Your task to perform on an android device: turn notification dots on Image 0: 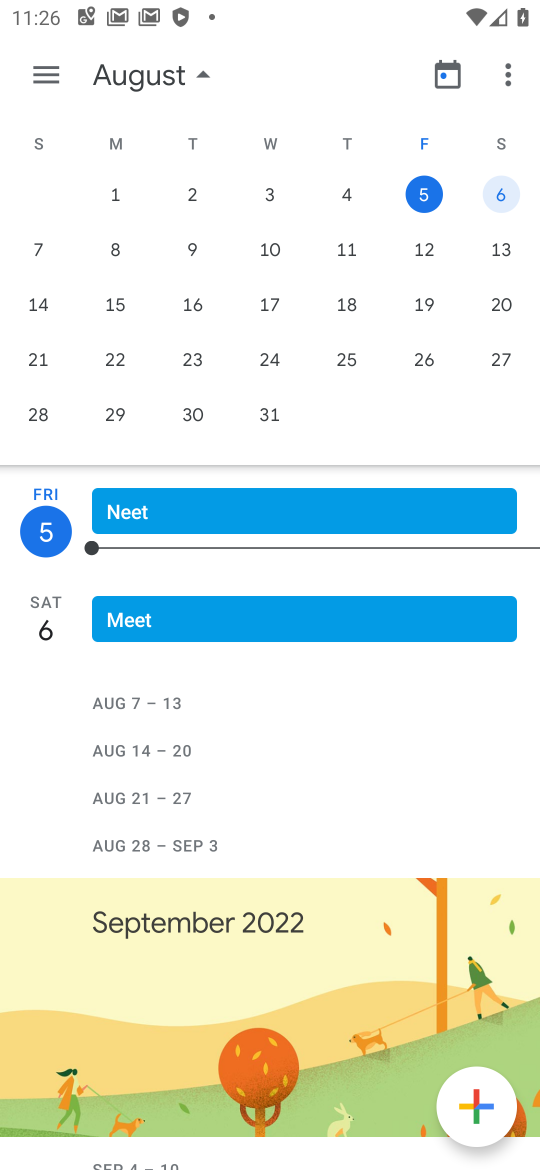
Step 0: press home button
Your task to perform on an android device: turn notification dots on Image 1: 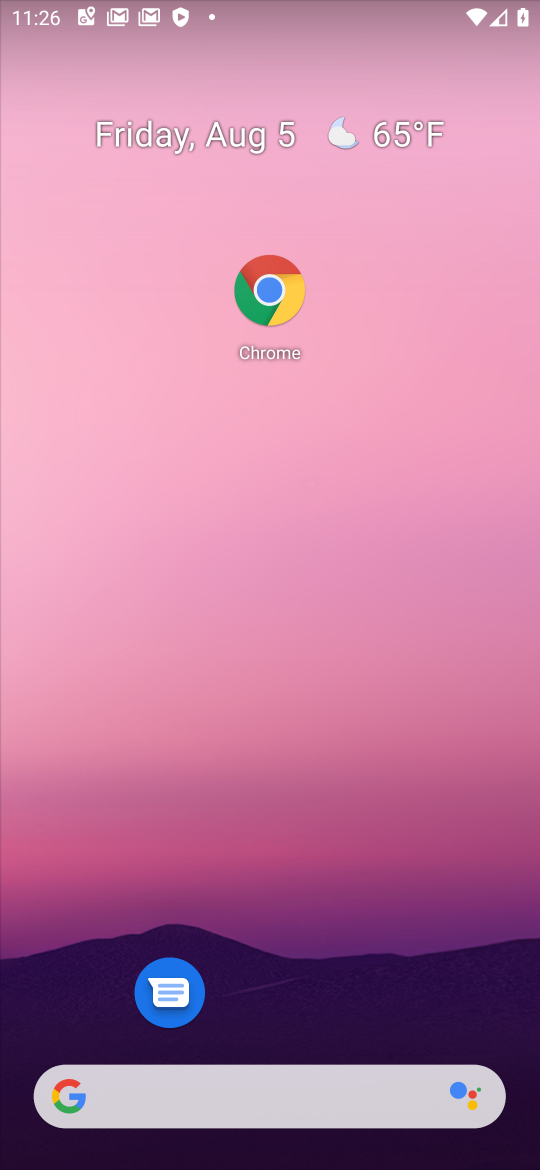
Step 1: drag from (303, 915) to (313, 66)
Your task to perform on an android device: turn notification dots on Image 2: 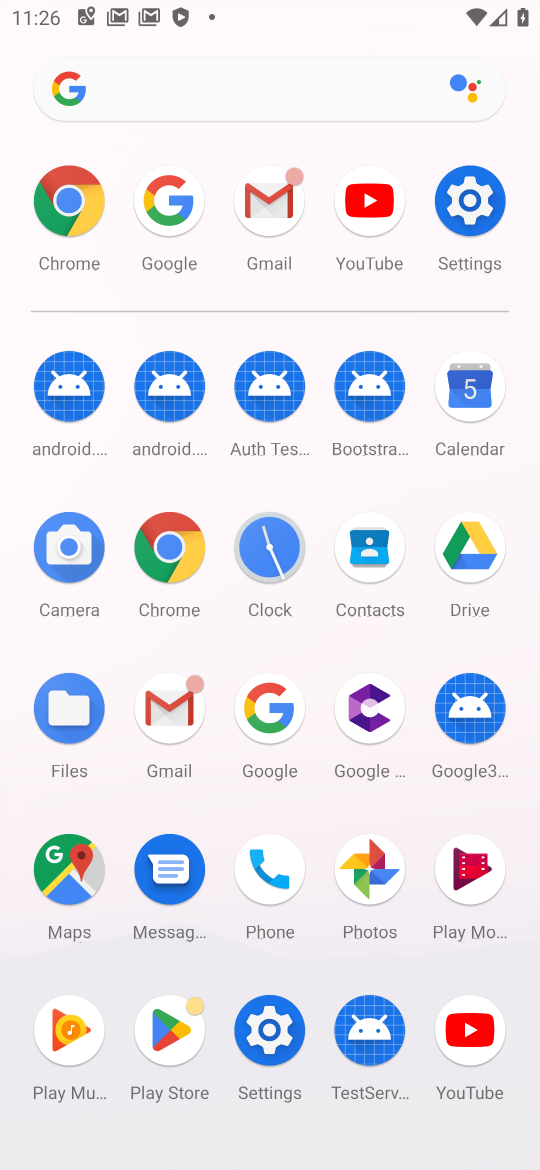
Step 2: click (469, 211)
Your task to perform on an android device: turn notification dots on Image 3: 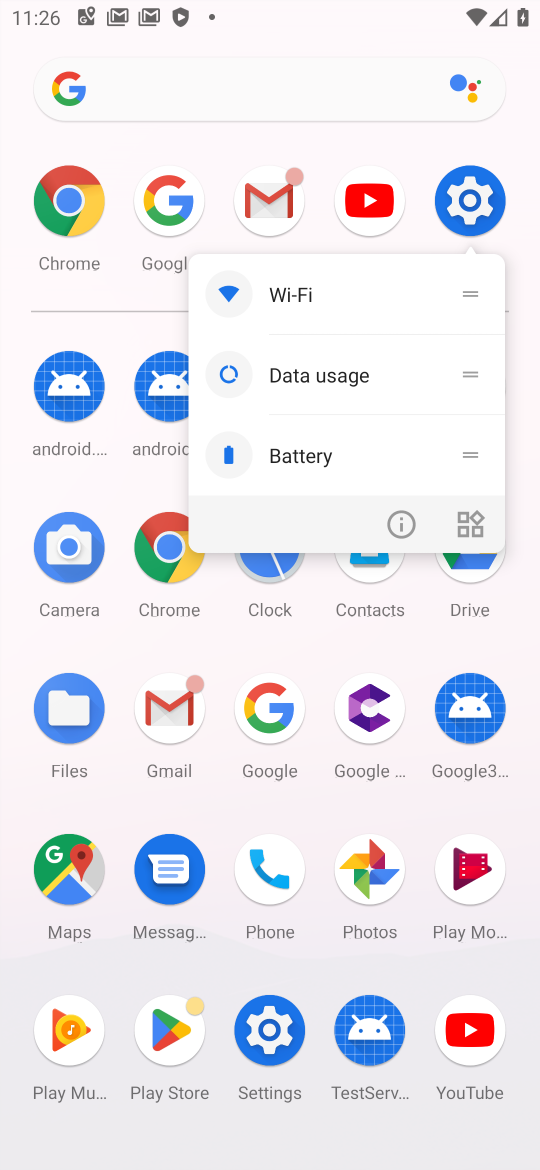
Step 3: click (469, 212)
Your task to perform on an android device: turn notification dots on Image 4: 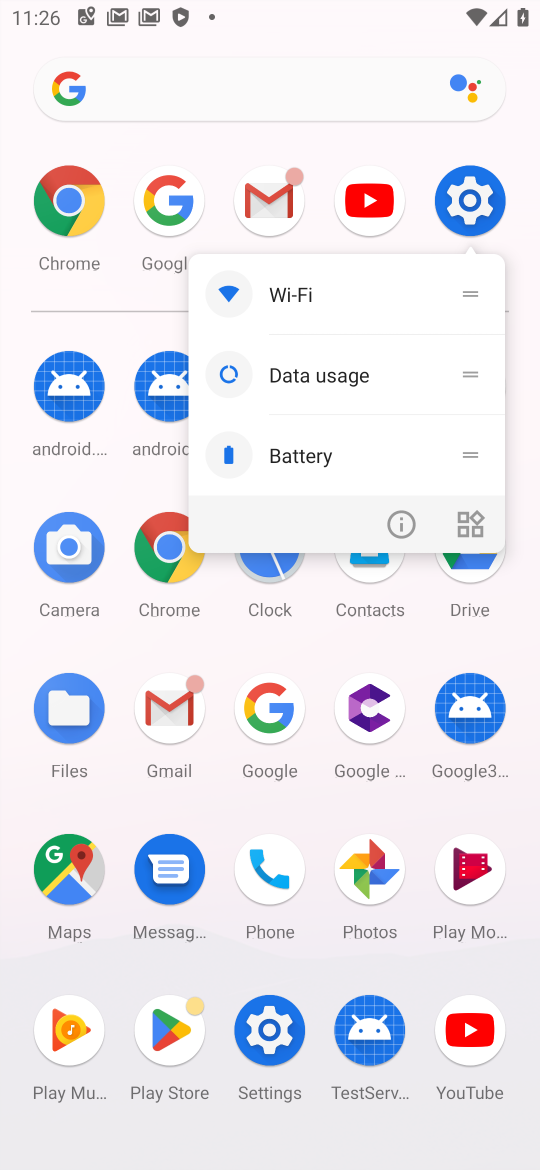
Step 4: click (469, 212)
Your task to perform on an android device: turn notification dots on Image 5: 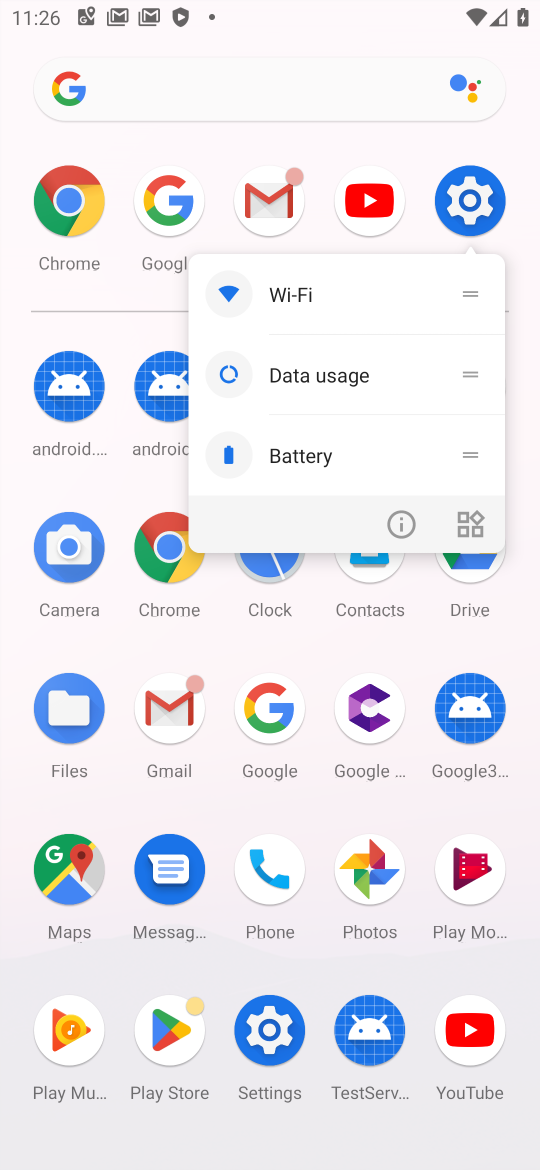
Step 5: click (468, 198)
Your task to perform on an android device: turn notification dots on Image 6: 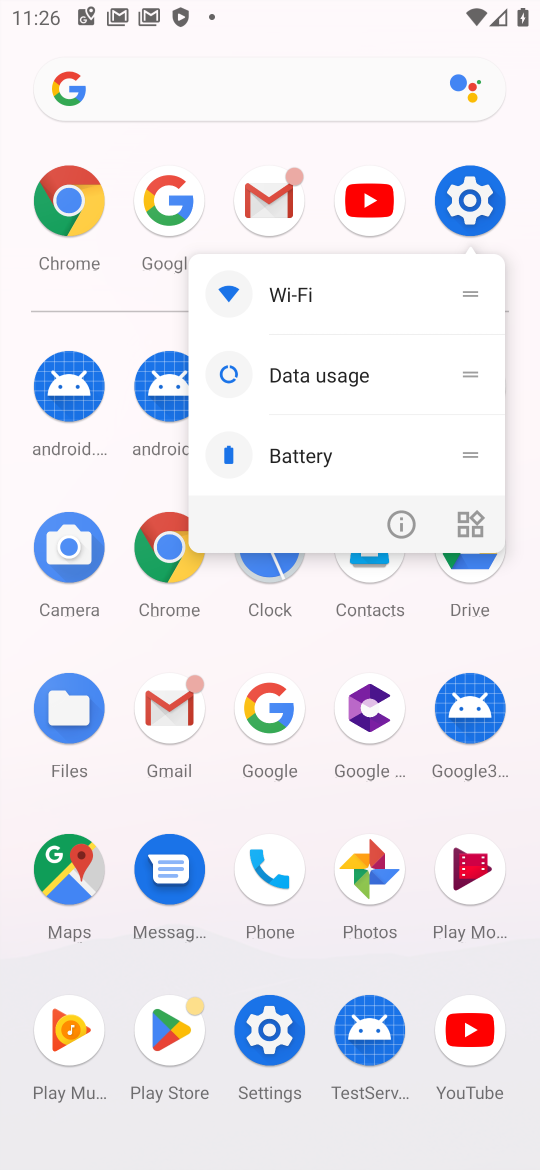
Step 6: click (468, 196)
Your task to perform on an android device: turn notification dots on Image 7: 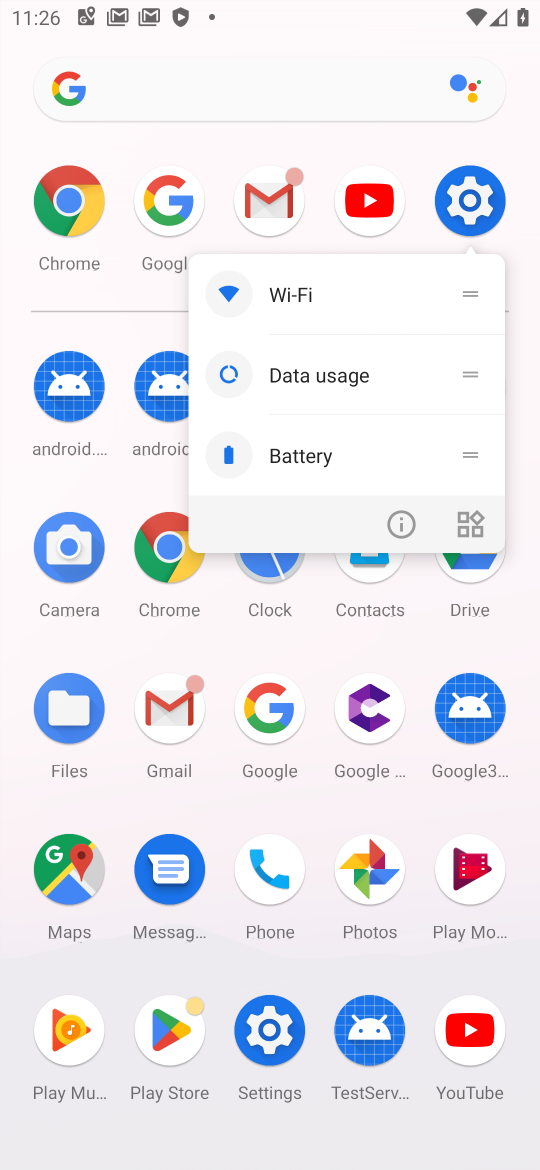
Step 7: click (468, 196)
Your task to perform on an android device: turn notification dots on Image 8: 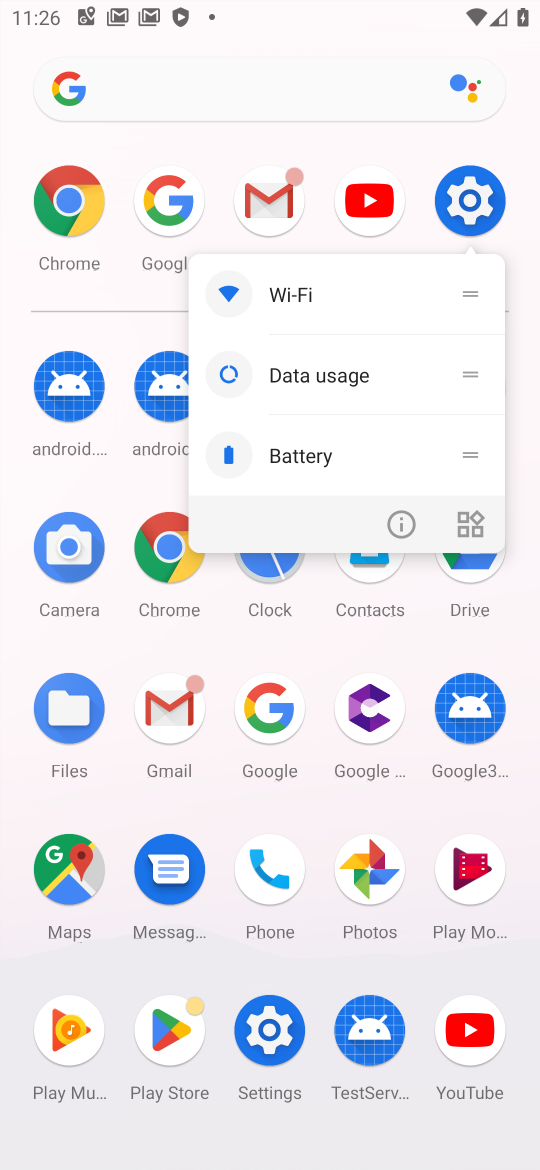
Step 8: click (468, 196)
Your task to perform on an android device: turn notification dots on Image 9: 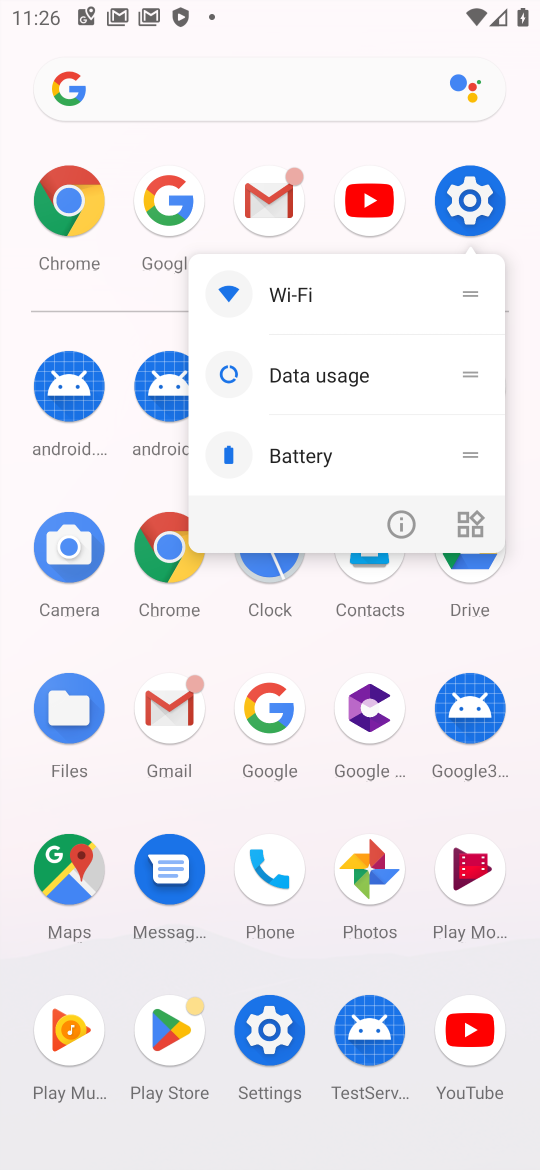
Step 9: click (468, 196)
Your task to perform on an android device: turn notification dots on Image 10: 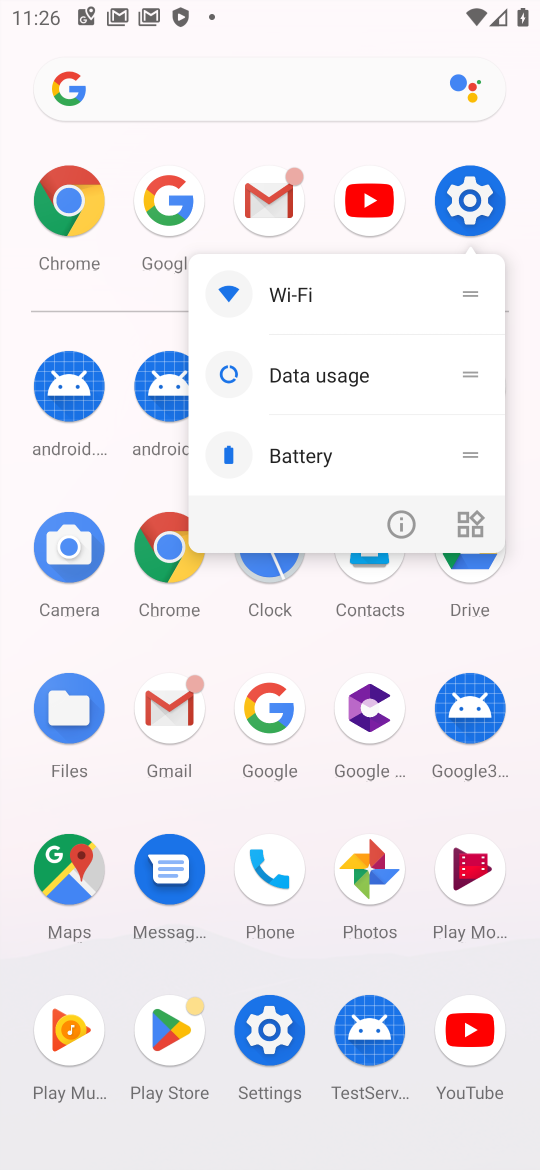
Step 10: click (468, 193)
Your task to perform on an android device: turn notification dots on Image 11: 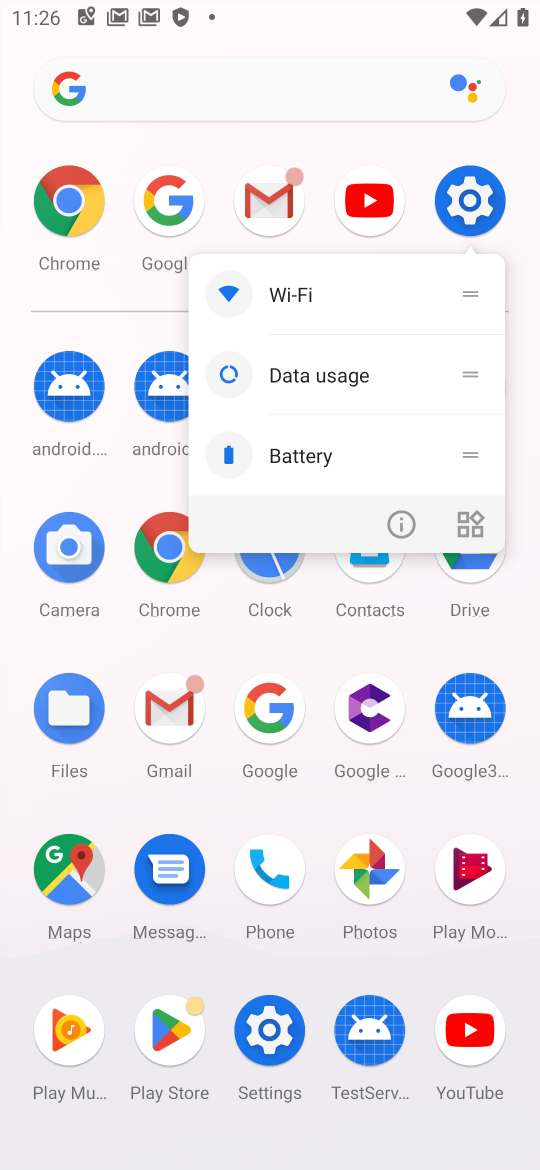
Step 11: click (468, 193)
Your task to perform on an android device: turn notification dots on Image 12: 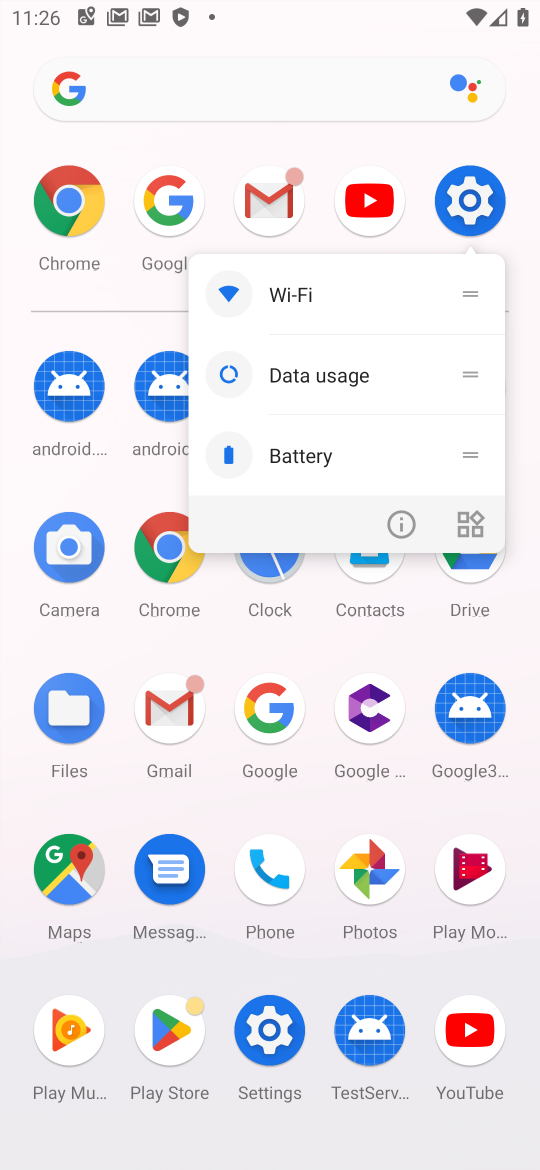
Step 12: click (468, 193)
Your task to perform on an android device: turn notification dots on Image 13: 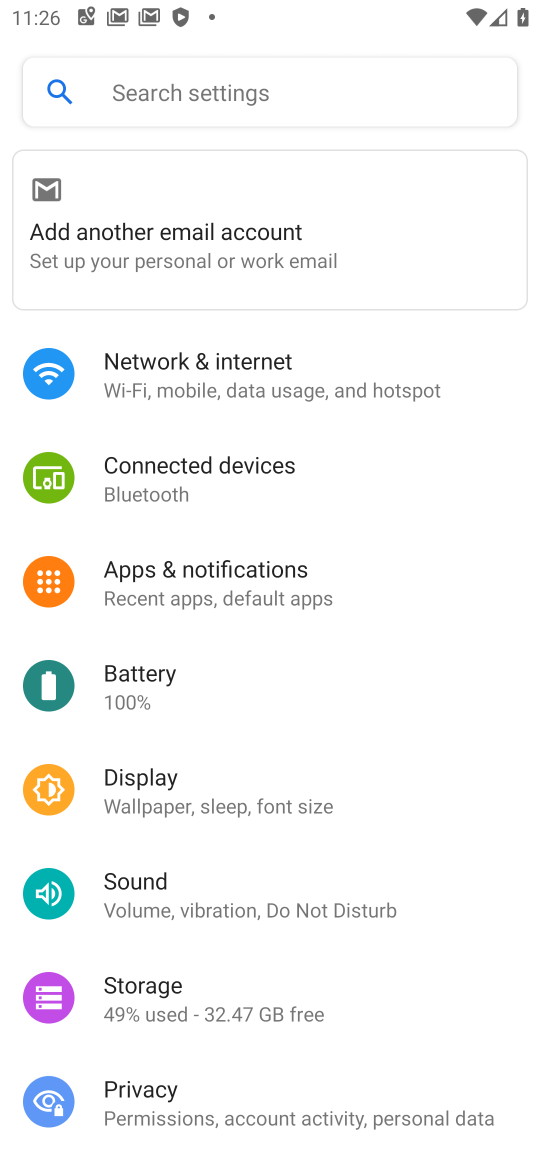
Step 13: click (192, 577)
Your task to perform on an android device: turn notification dots on Image 14: 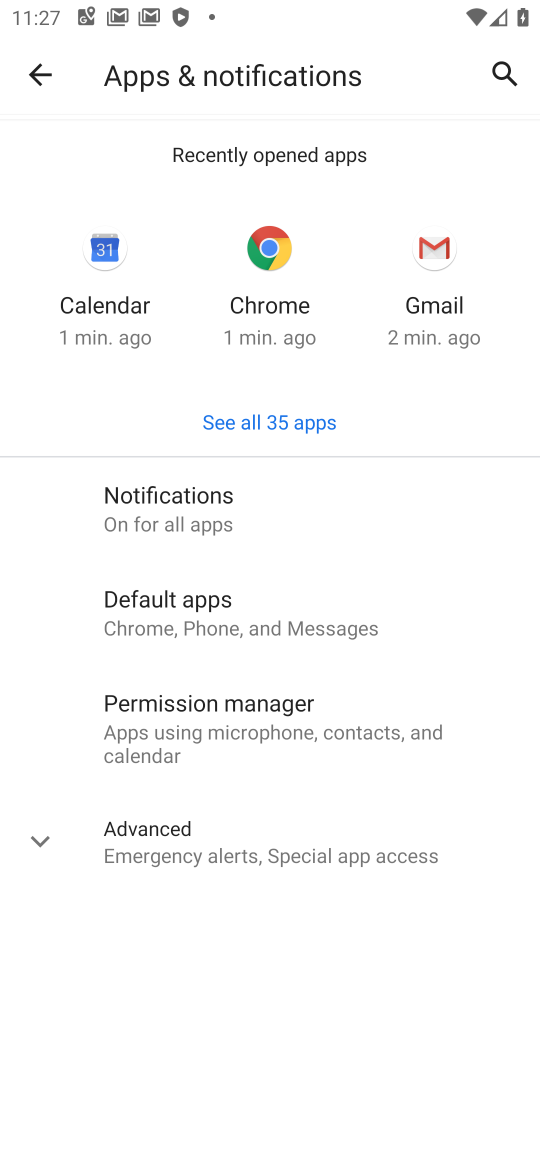
Step 14: click (166, 526)
Your task to perform on an android device: turn notification dots on Image 15: 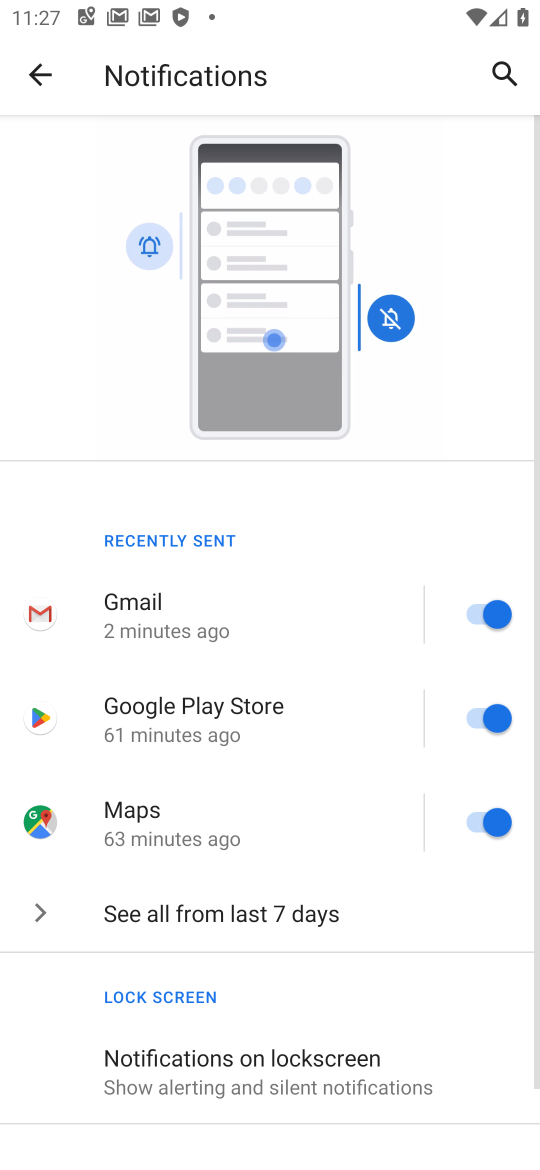
Step 15: drag from (272, 975) to (301, 527)
Your task to perform on an android device: turn notification dots on Image 16: 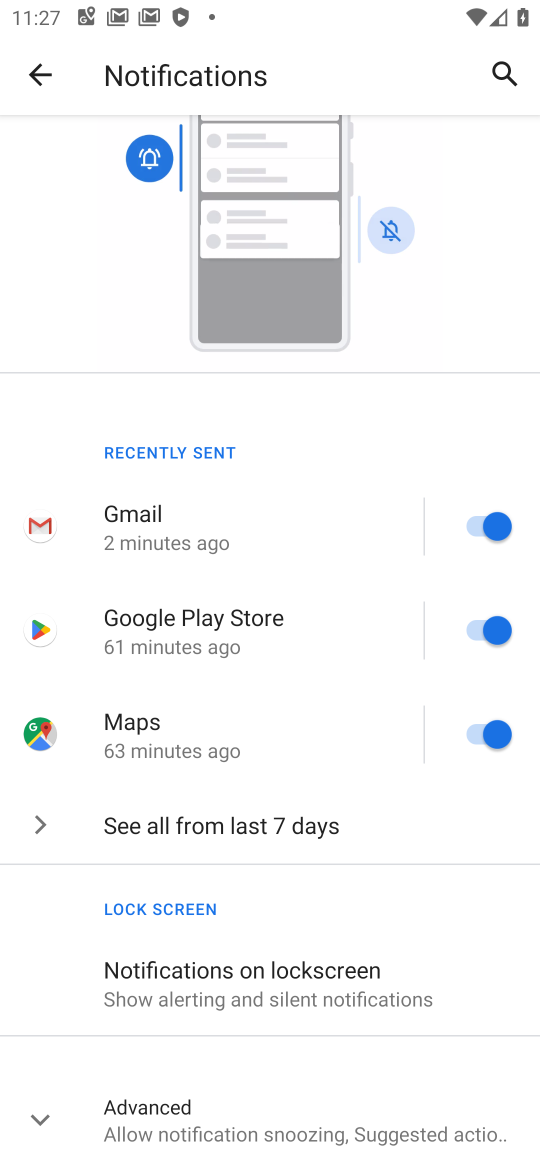
Step 16: click (271, 1149)
Your task to perform on an android device: turn notification dots on Image 17: 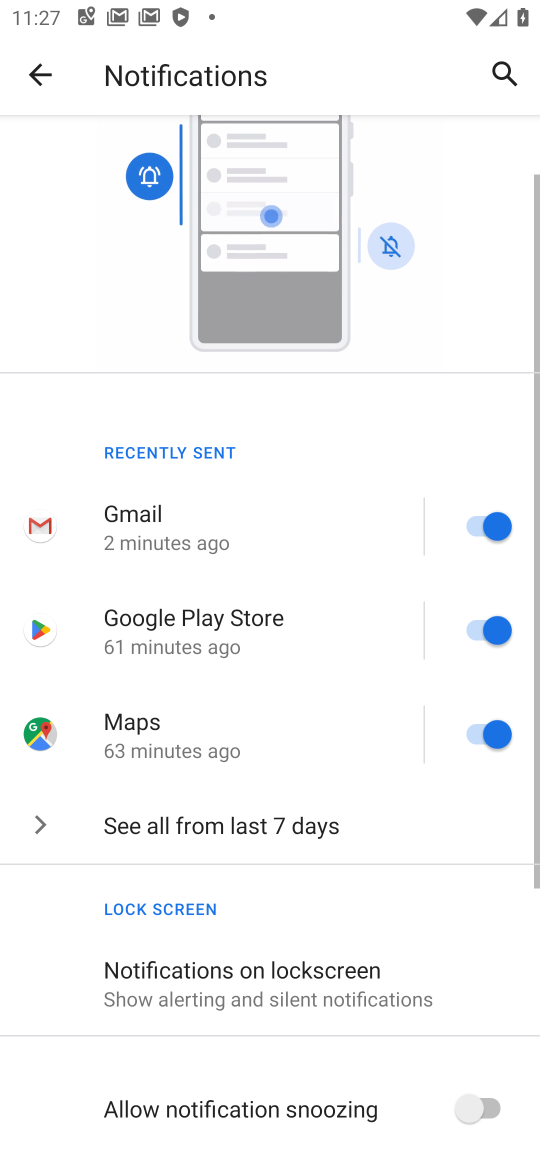
Step 17: task complete